Your task to perform on an android device: Open Google Maps and go to "Timeline" Image 0: 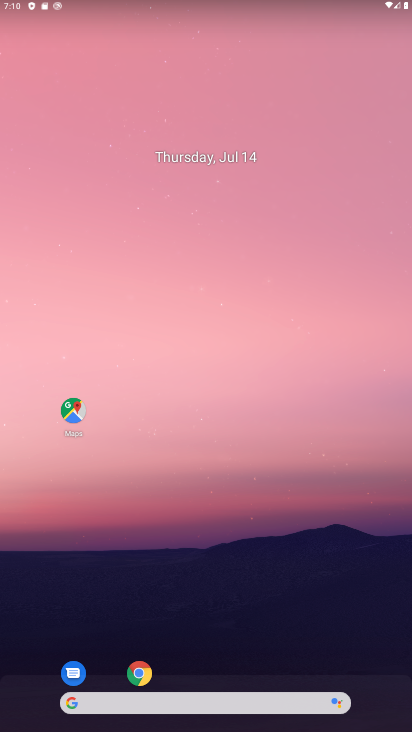
Step 0: click (71, 408)
Your task to perform on an android device: Open Google Maps and go to "Timeline" Image 1: 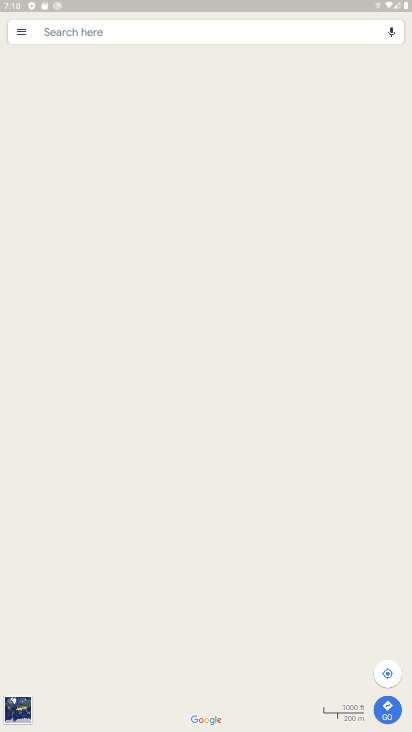
Step 1: click (193, 482)
Your task to perform on an android device: Open Google Maps and go to "Timeline" Image 2: 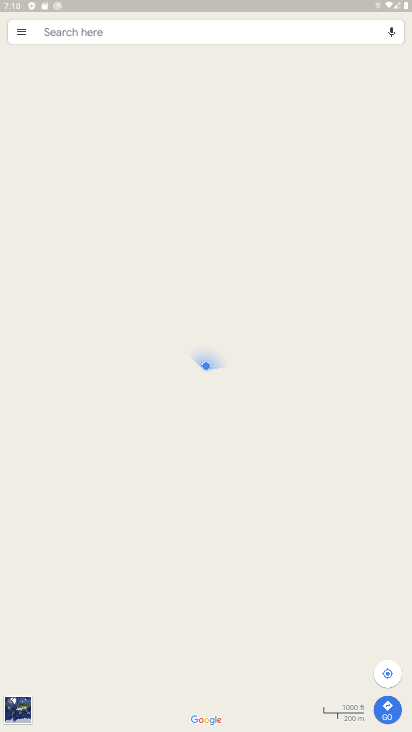
Step 2: click (23, 35)
Your task to perform on an android device: Open Google Maps and go to "Timeline" Image 3: 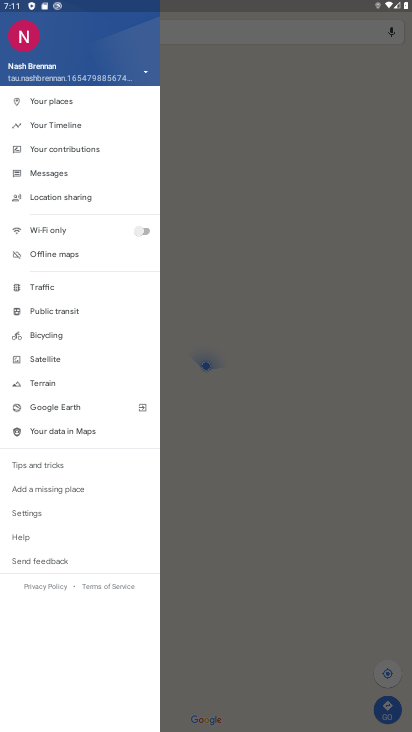
Step 3: click (60, 126)
Your task to perform on an android device: Open Google Maps and go to "Timeline" Image 4: 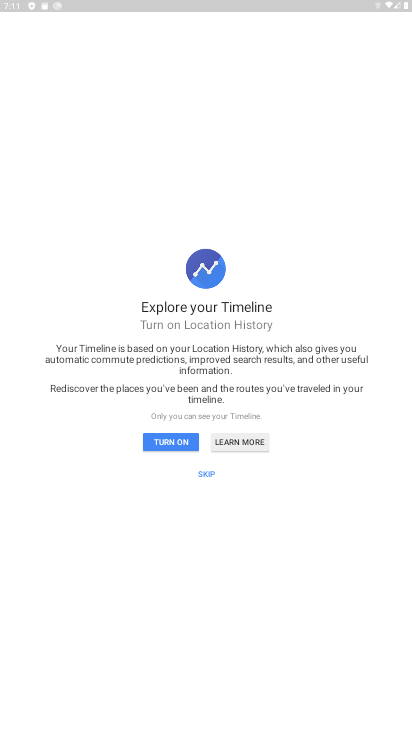
Step 4: click (168, 441)
Your task to perform on an android device: Open Google Maps and go to "Timeline" Image 5: 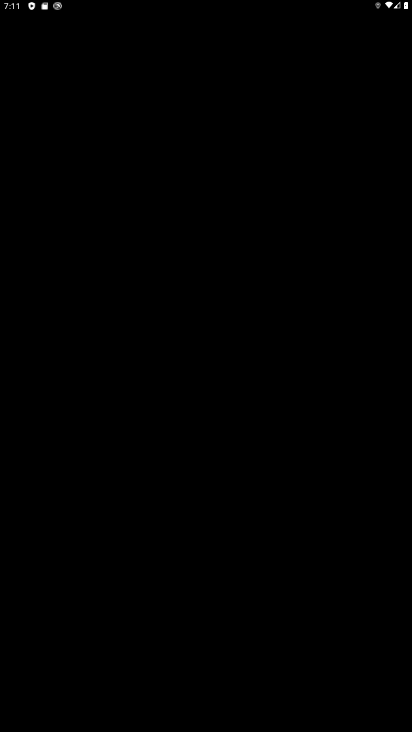
Step 5: task complete